Your task to perform on an android device: read, delete, or share a saved page in the chrome app Image 0: 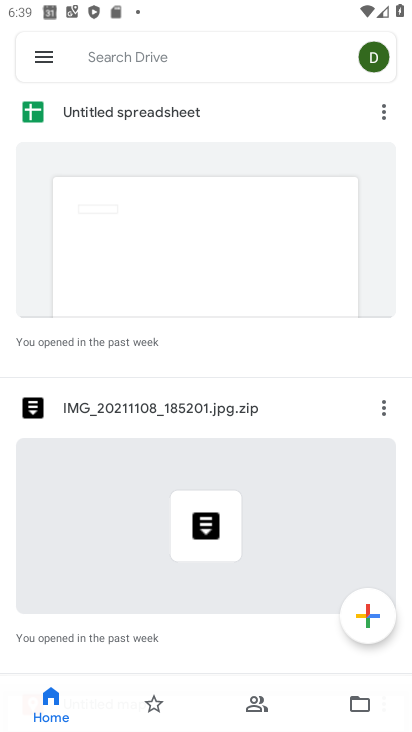
Step 0: press home button
Your task to perform on an android device: read, delete, or share a saved page in the chrome app Image 1: 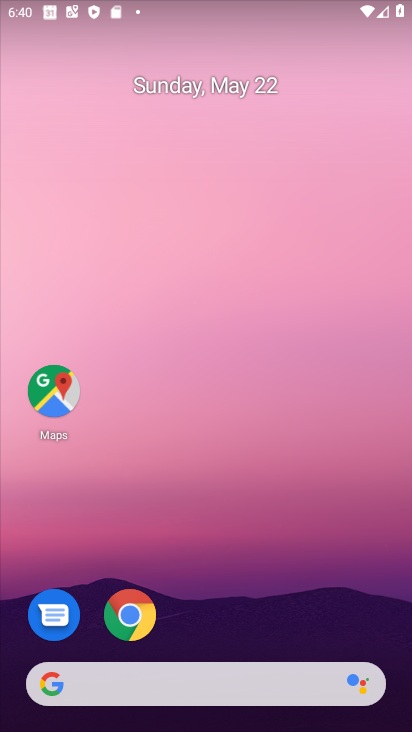
Step 1: click (129, 620)
Your task to perform on an android device: read, delete, or share a saved page in the chrome app Image 2: 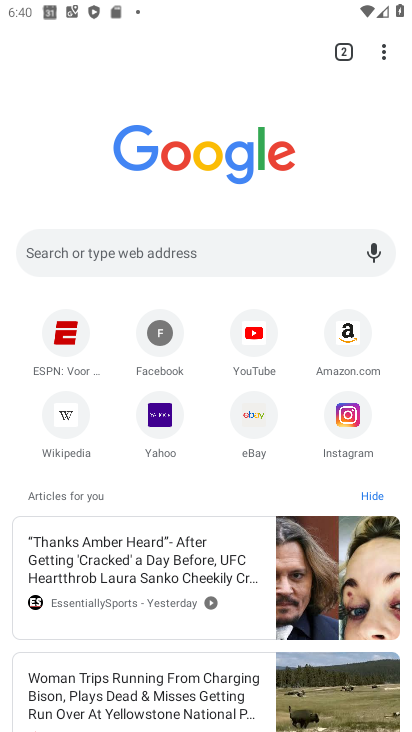
Step 2: click (386, 49)
Your task to perform on an android device: read, delete, or share a saved page in the chrome app Image 3: 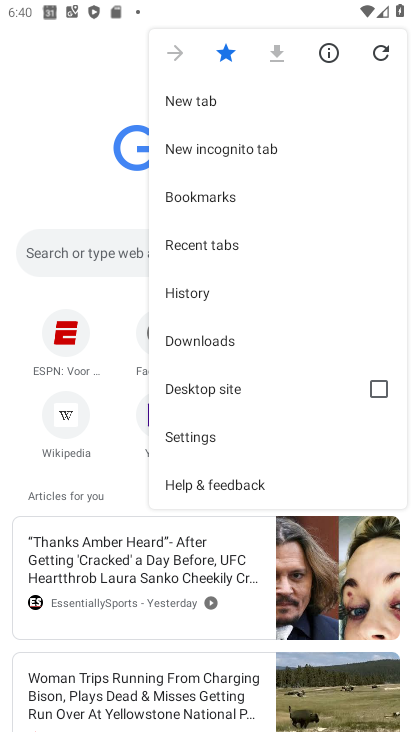
Step 3: click (216, 337)
Your task to perform on an android device: read, delete, or share a saved page in the chrome app Image 4: 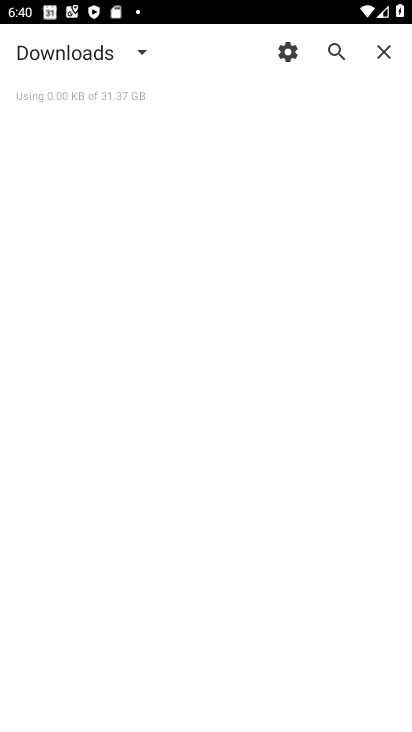
Step 4: task complete